Your task to perform on an android device: Open network settings Image 0: 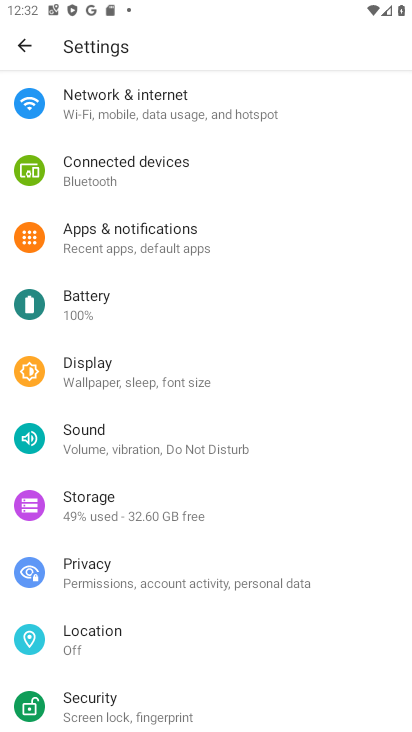
Step 0: press home button
Your task to perform on an android device: Open network settings Image 1: 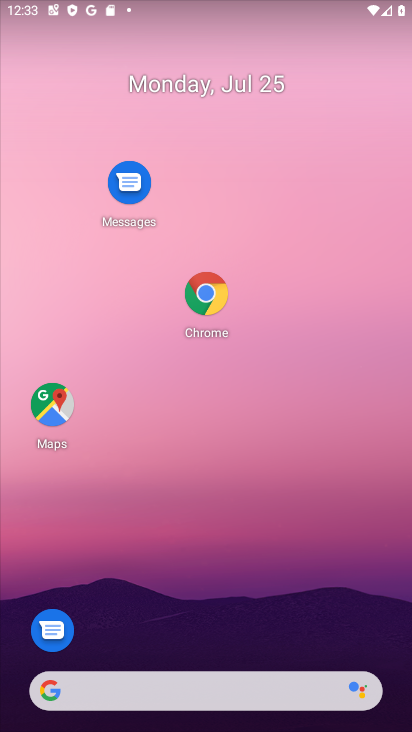
Step 1: drag from (246, 595) to (246, 48)
Your task to perform on an android device: Open network settings Image 2: 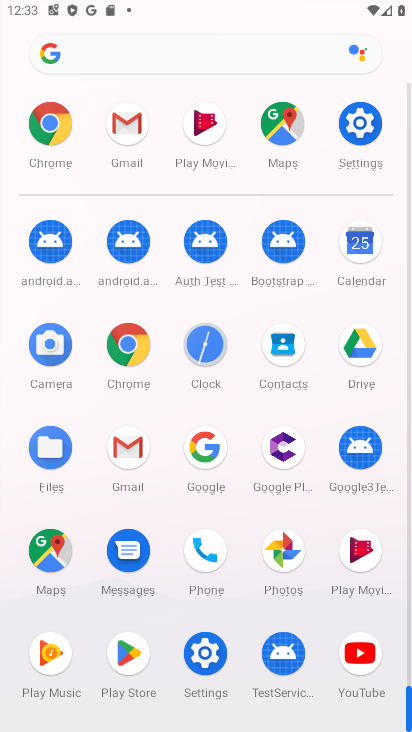
Step 2: click (215, 654)
Your task to perform on an android device: Open network settings Image 3: 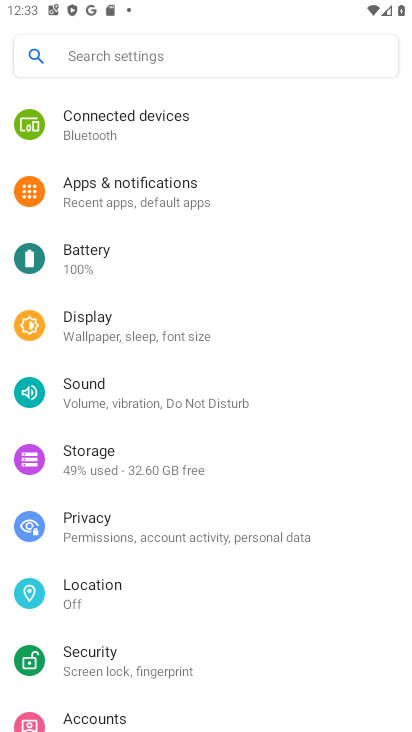
Step 3: drag from (119, 139) to (97, 644)
Your task to perform on an android device: Open network settings Image 4: 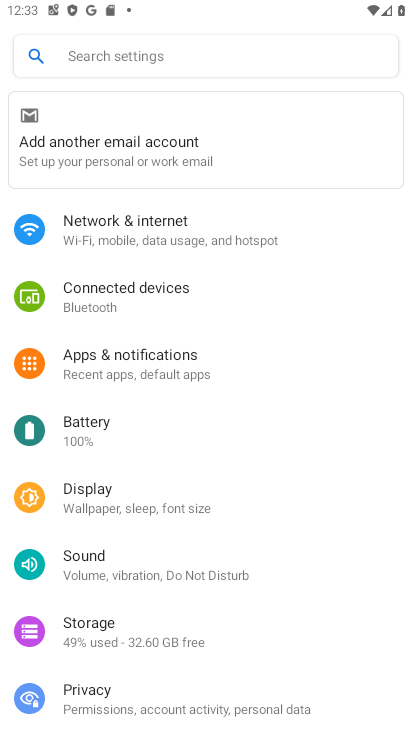
Step 4: click (92, 227)
Your task to perform on an android device: Open network settings Image 5: 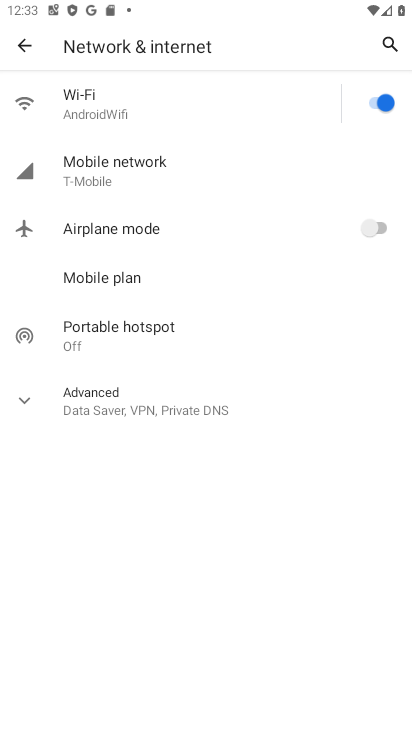
Step 5: task complete